Your task to perform on an android device: Open Google Maps Image 0: 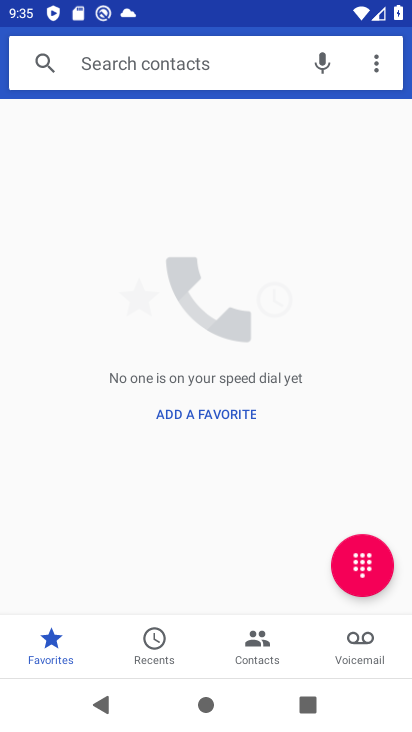
Step 0: press home button
Your task to perform on an android device: Open Google Maps Image 1: 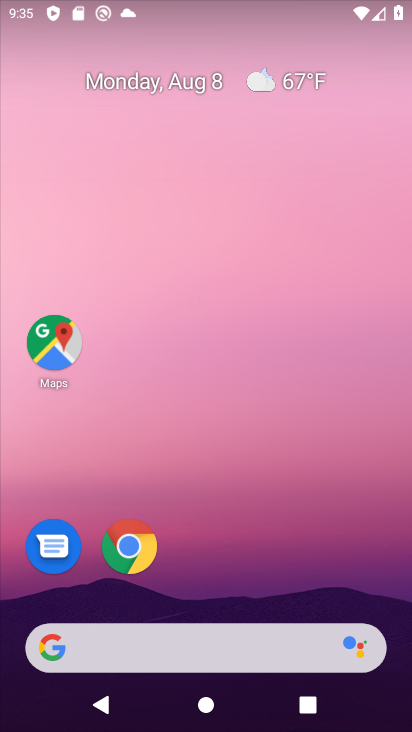
Step 1: click (62, 327)
Your task to perform on an android device: Open Google Maps Image 2: 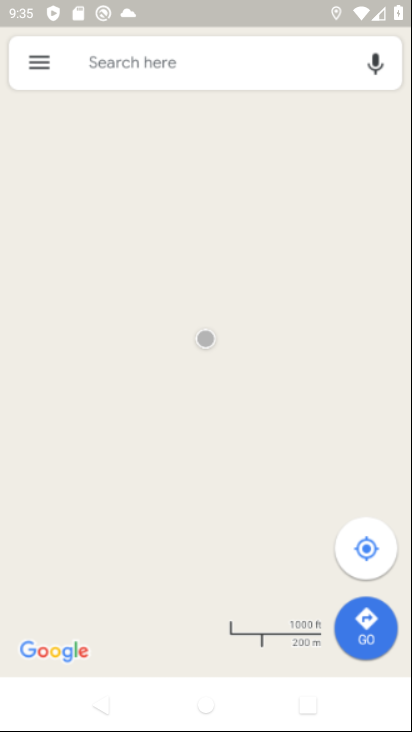
Step 2: task complete